Your task to perform on an android device: Show me popular games on the Play Store Image 0: 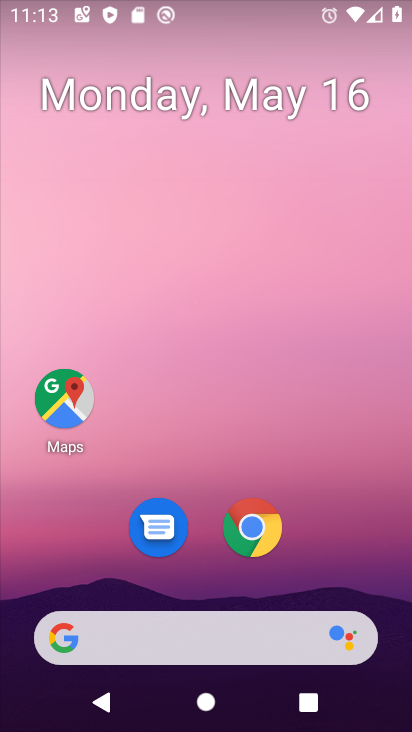
Step 0: drag from (364, 595) to (411, 591)
Your task to perform on an android device: Show me popular games on the Play Store Image 1: 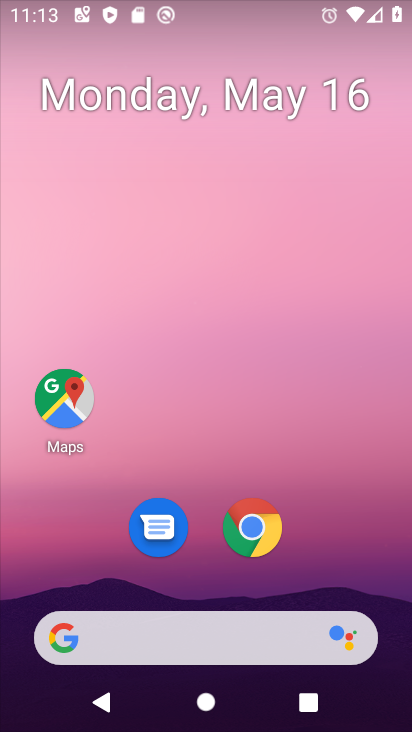
Step 1: drag from (398, 604) to (387, 729)
Your task to perform on an android device: Show me popular games on the Play Store Image 2: 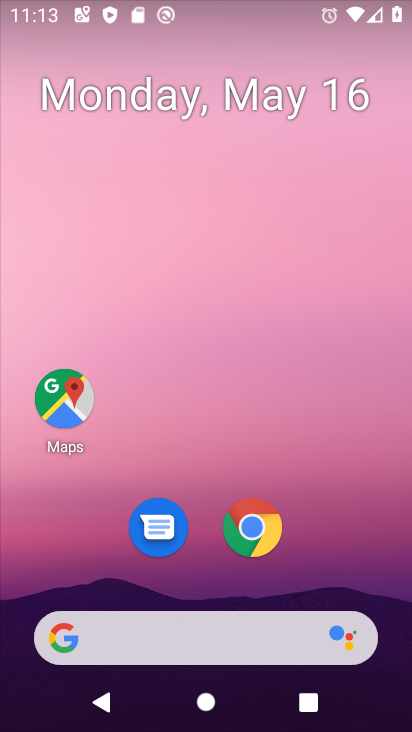
Step 2: drag from (382, 602) to (411, 517)
Your task to perform on an android device: Show me popular games on the Play Store Image 3: 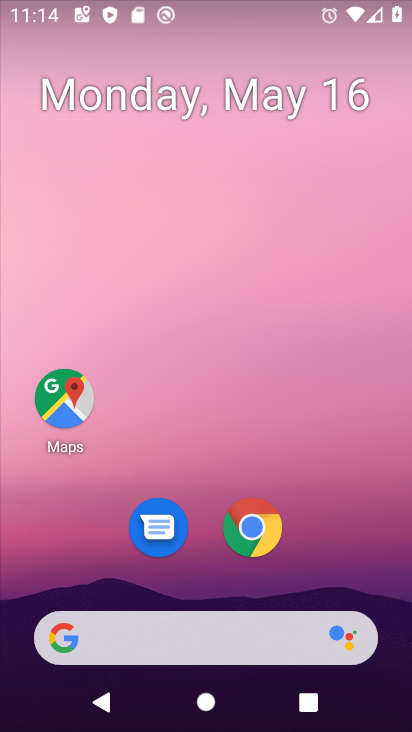
Step 3: drag from (380, 570) to (392, 8)
Your task to perform on an android device: Show me popular games on the Play Store Image 4: 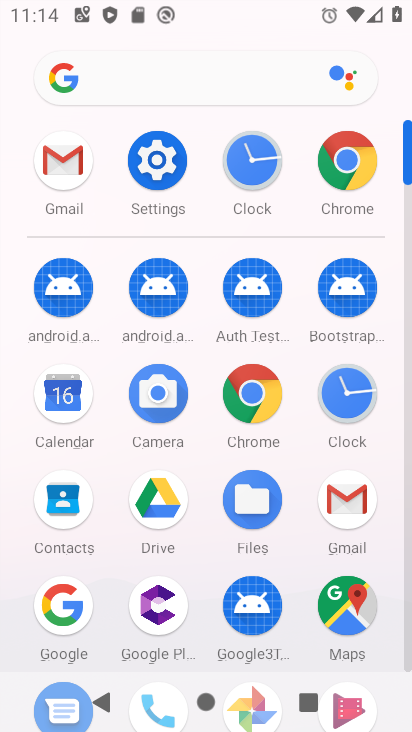
Step 4: drag from (404, 353) to (408, 304)
Your task to perform on an android device: Show me popular games on the Play Store Image 5: 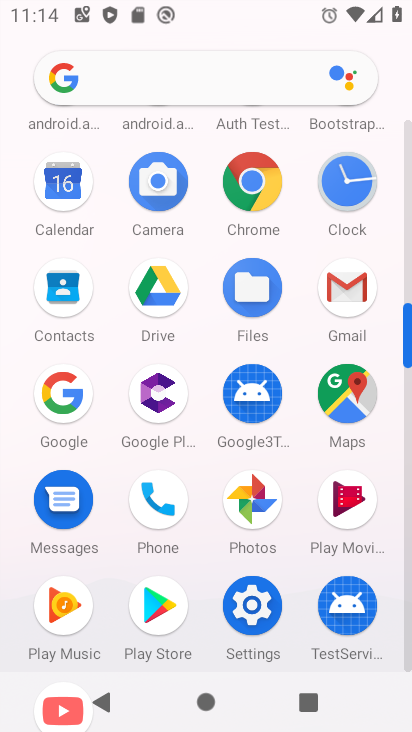
Step 5: click (146, 605)
Your task to perform on an android device: Show me popular games on the Play Store Image 6: 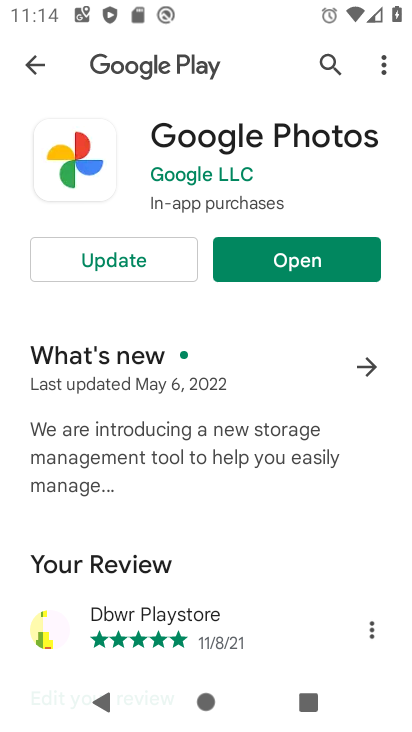
Step 6: click (38, 70)
Your task to perform on an android device: Show me popular games on the Play Store Image 7: 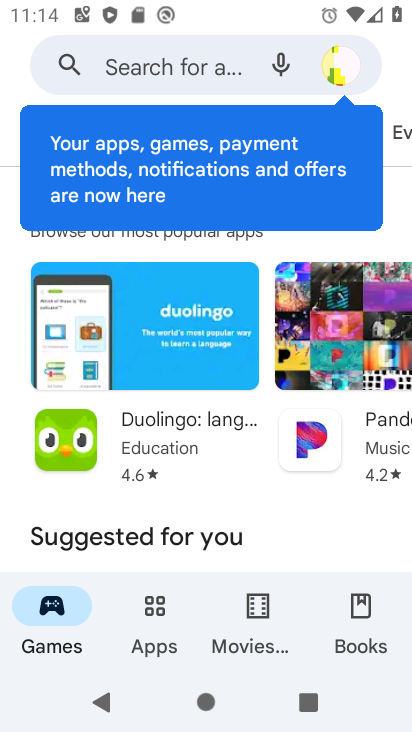
Step 7: drag from (257, 309) to (287, 60)
Your task to perform on an android device: Show me popular games on the Play Store Image 8: 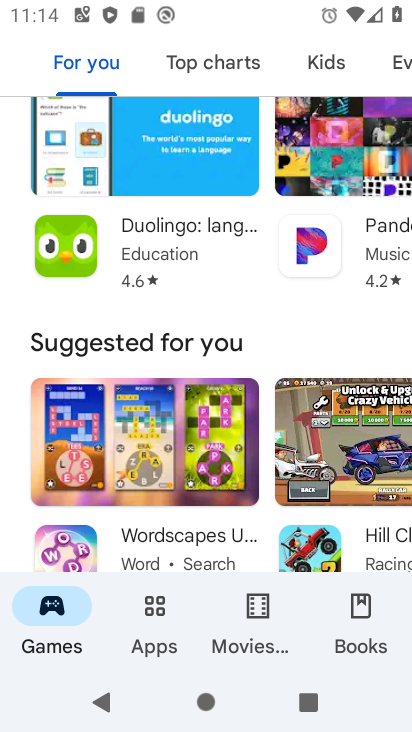
Step 8: drag from (201, 469) to (261, 146)
Your task to perform on an android device: Show me popular games on the Play Store Image 9: 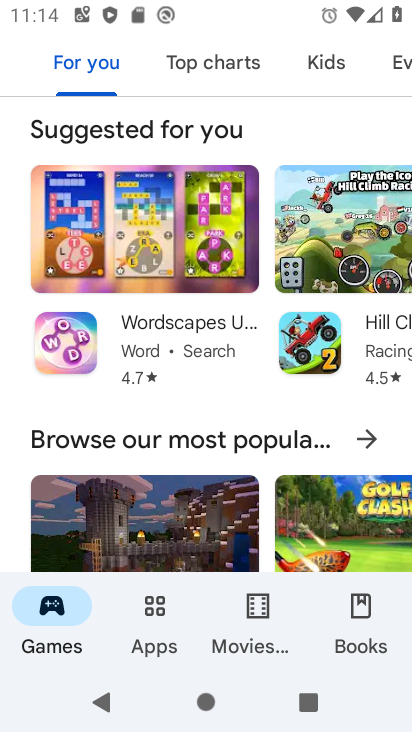
Step 9: drag from (258, 445) to (270, 317)
Your task to perform on an android device: Show me popular games on the Play Store Image 10: 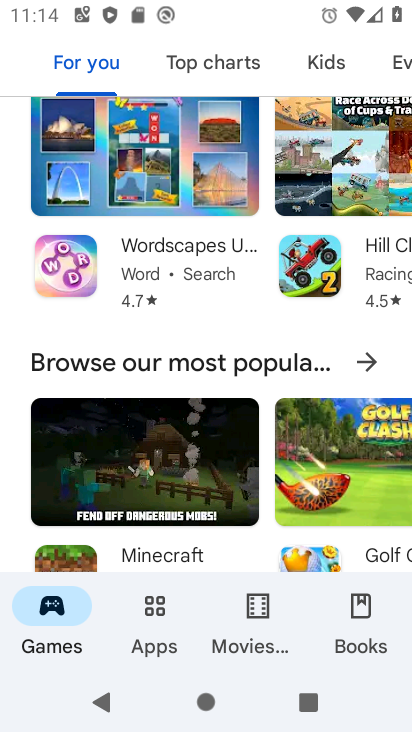
Step 10: click (297, 366)
Your task to perform on an android device: Show me popular games on the Play Store Image 11: 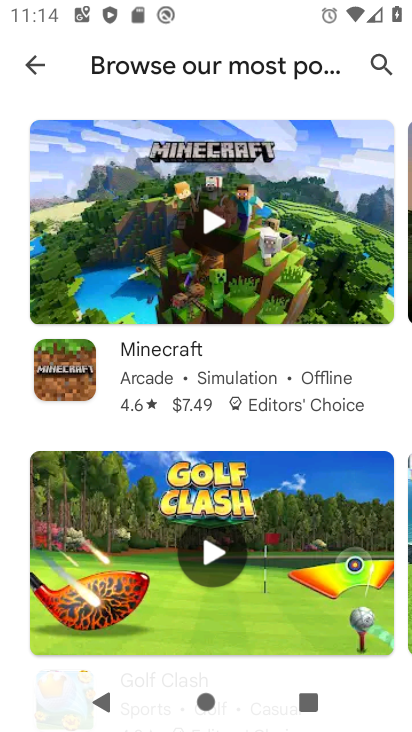
Step 11: task complete